Your task to perform on an android device: Open Android settings Image 0: 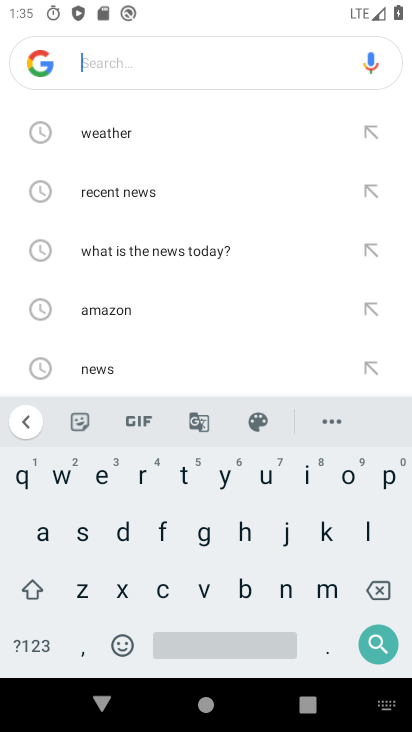
Step 0: press home button
Your task to perform on an android device: Open Android settings Image 1: 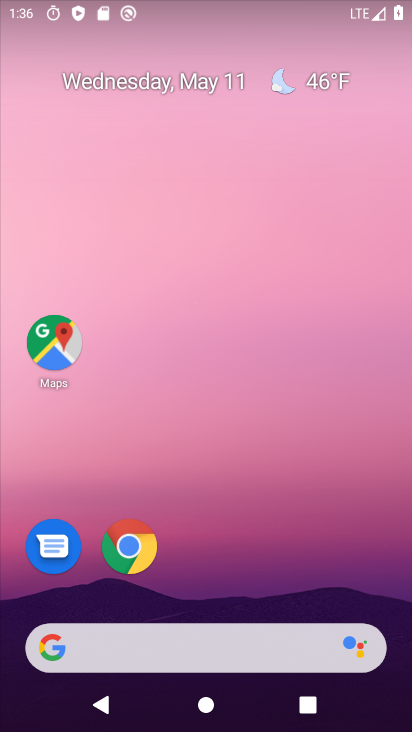
Step 1: drag from (278, 681) to (278, 250)
Your task to perform on an android device: Open Android settings Image 2: 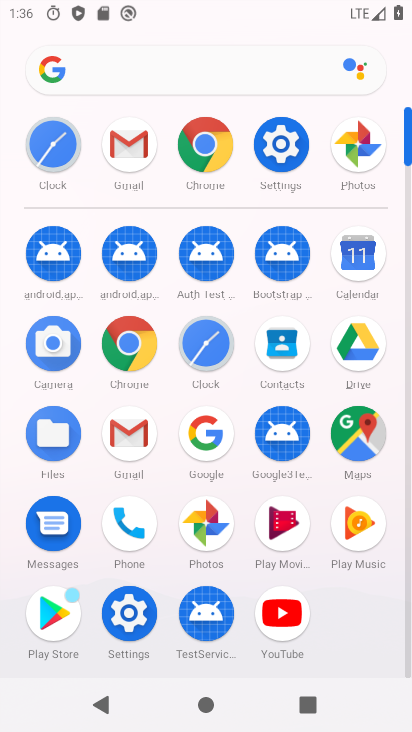
Step 2: click (279, 144)
Your task to perform on an android device: Open Android settings Image 3: 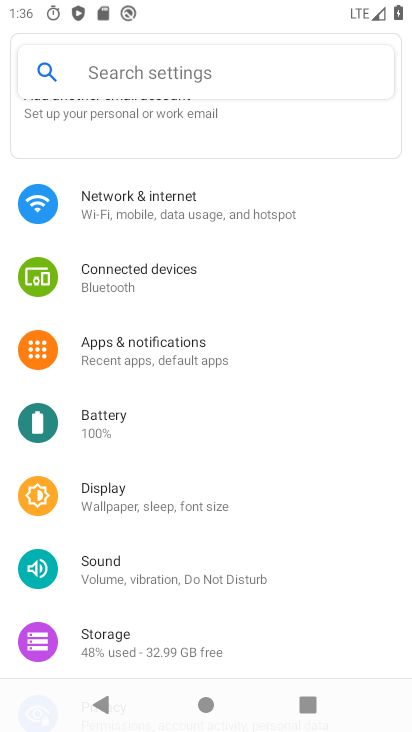
Step 3: click (208, 67)
Your task to perform on an android device: Open Android settings Image 4: 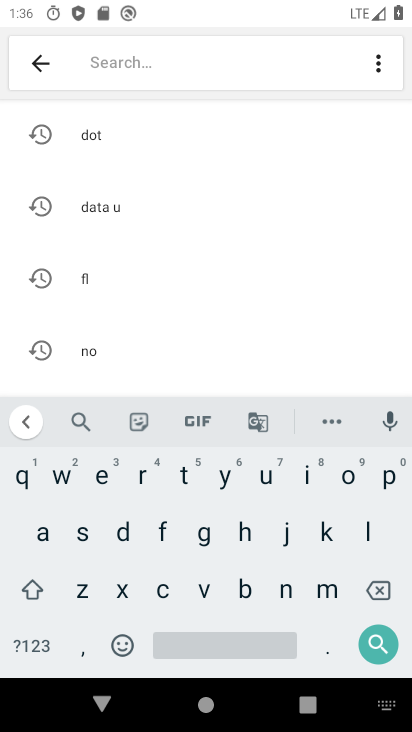
Step 4: click (37, 538)
Your task to perform on an android device: Open Android settings Image 5: 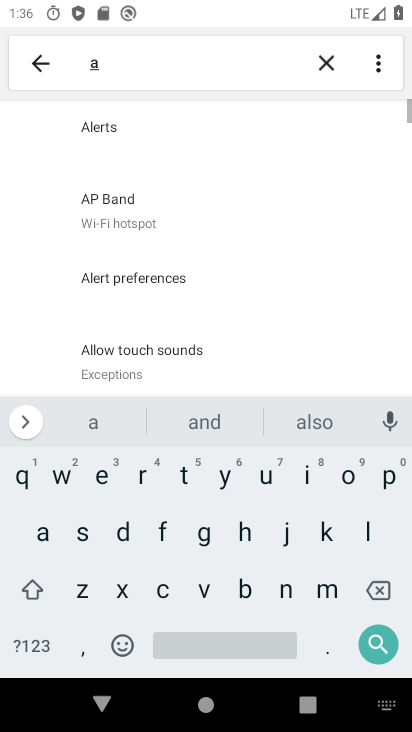
Step 5: click (290, 585)
Your task to perform on an android device: Open Android settings Image 6: 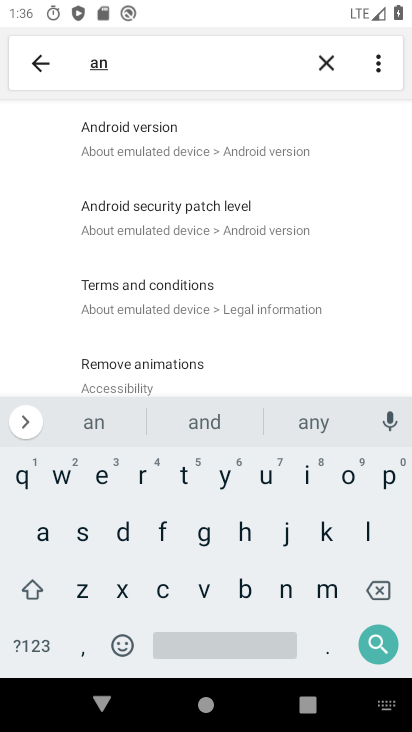
Step 6: click (194, 148)
Your task to perform on an android device: Open Android settings Image 7: 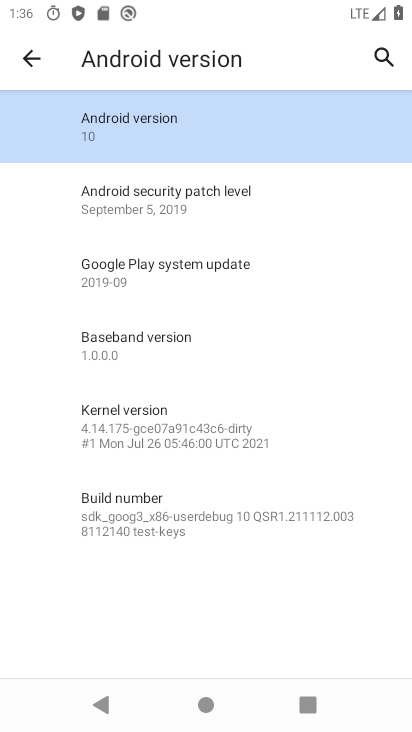
Step 7: task complete